Your task to perform on an android device: turn on improve location accuracy Image 0: 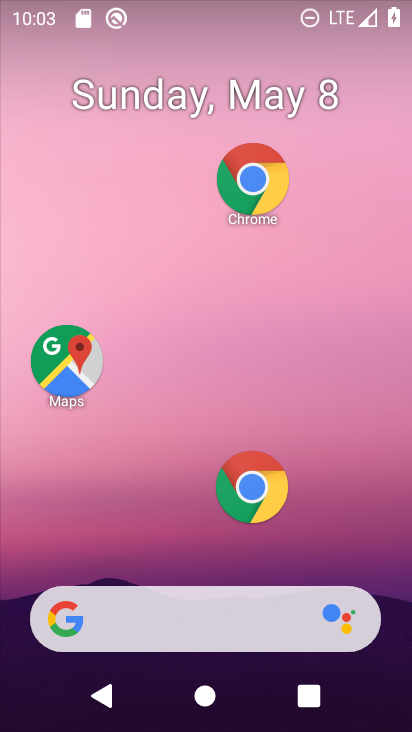
Step 0: drag from (156, 507) to (118, 60)
Your task to perform on an android device: turn on improve location accuracy Image 1: 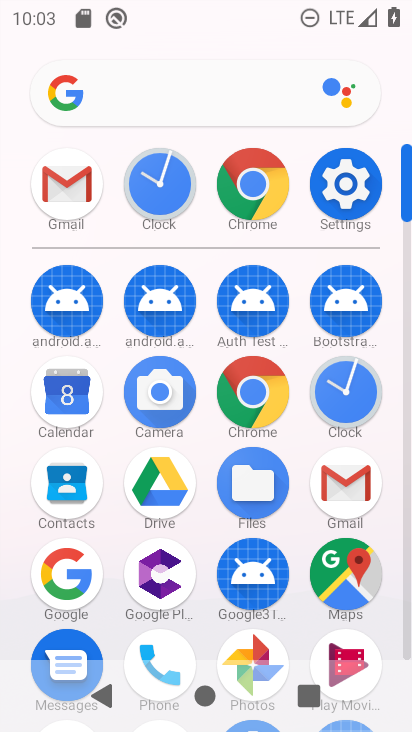
Step 1: click (360, 199)
Your task to perform on an android device: turn on improve location accuracy Image 2: 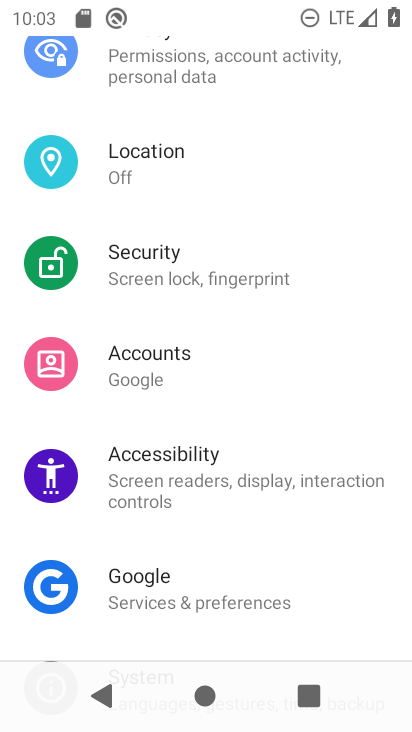
Step 2: drag from (224, 510) to (250, 247)
Your task to perform on an android device: turn on improve location accuracy Image 3: 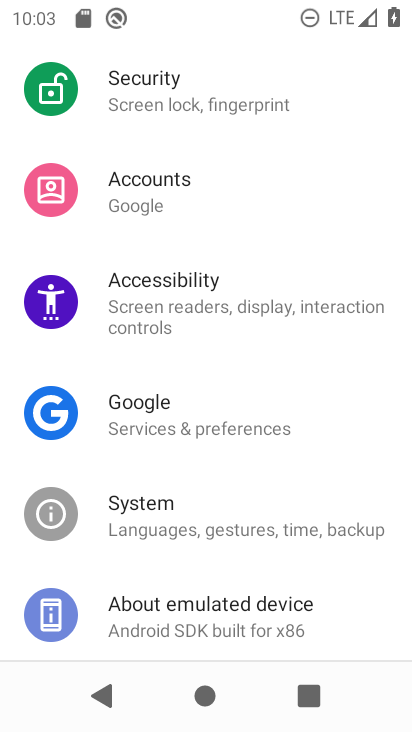
Step 3: drag from (261, 184) to (247, 510)
Your task to perform on an android device: turn on improve location accuracy Image 4: 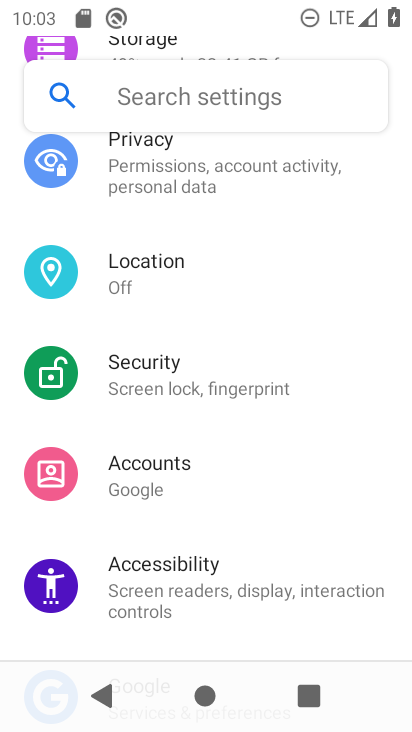
Step 4: click (213, 269)
Your task to perform on an android device: turn on improve location accuracy Image 5: 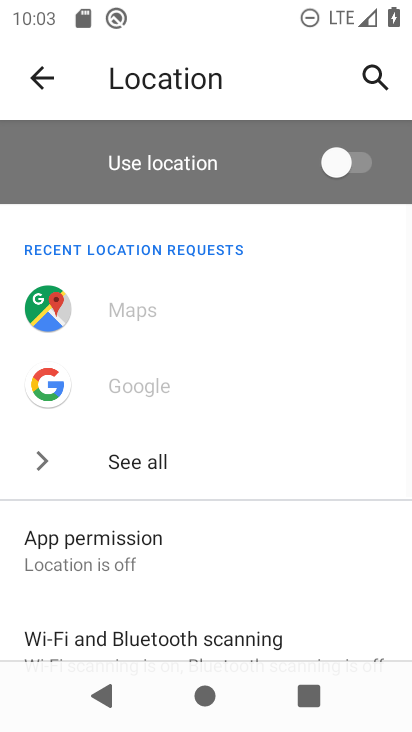
Step 5: drag from (182, 540) to (251, 109)
Your task to perform on an android device: turn on improve location accuracy Image 6: 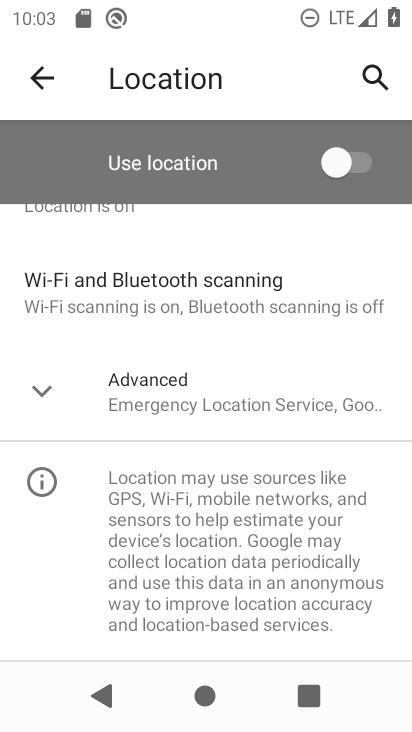
Step 6: click (42, 390)
Your task to perform on an android device: turn on improve location accuracy Image 7: 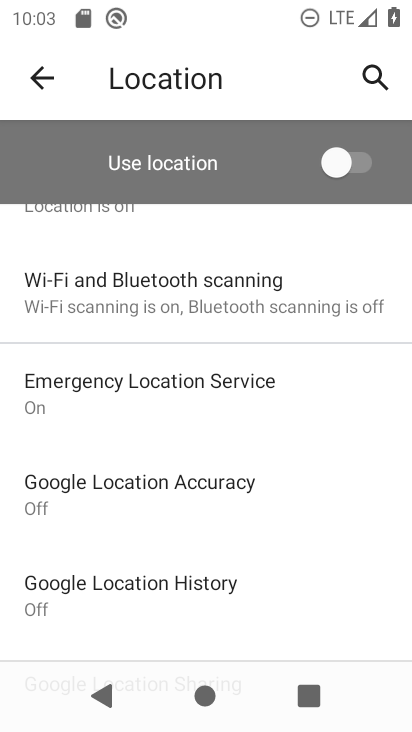
Step 7: click (224, 505)
Your task to perform on an android device: turn on improve location accuracy Image 8: 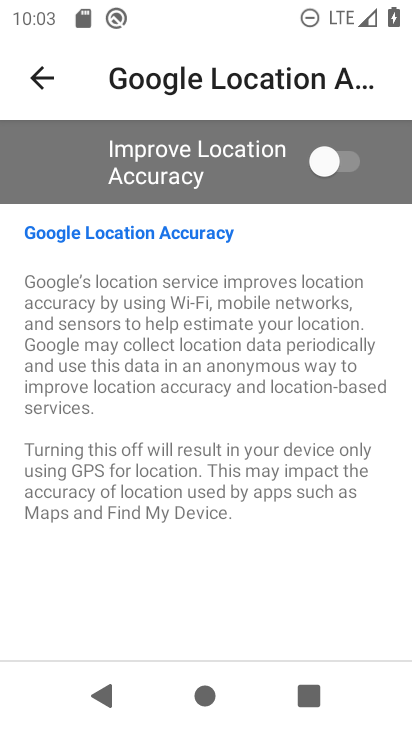
Step 8: click (343, 165)
Your task to perform on an android device: turn on improve location accuracy Image 9: 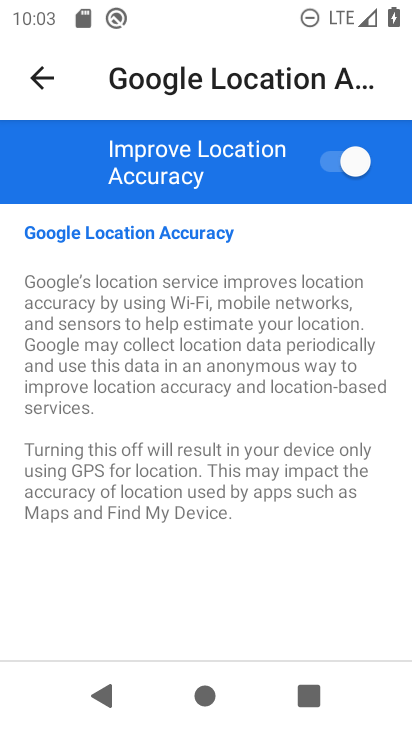
Step 9: task complete